Your task to perform on an android device: see sites visited before in the chrome app Image 0: 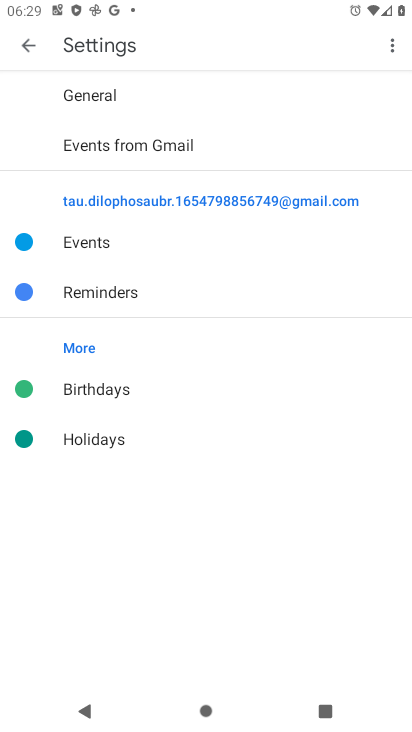
Step 0: press back button
Your task to perform on an android device: see sites visited before in the chrome app Image 1: 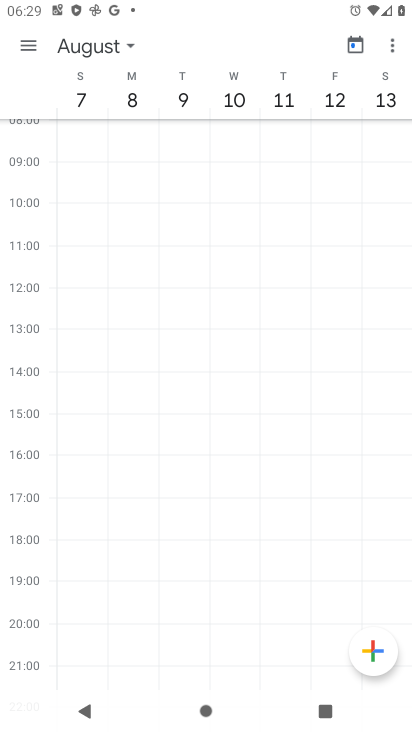
Step 1: press home button
Your task to perform on an android device: see sites visited before in the chrome app Image 2: 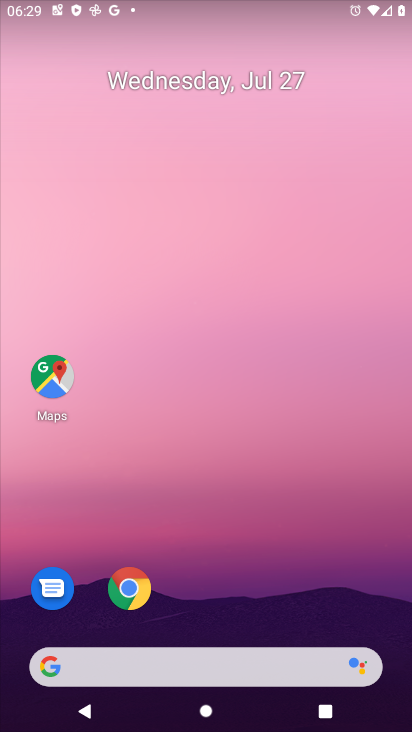
Step 2: click (130, 580)
Your task to perform on an android device: see sites visited before in the chrome app Image 3: 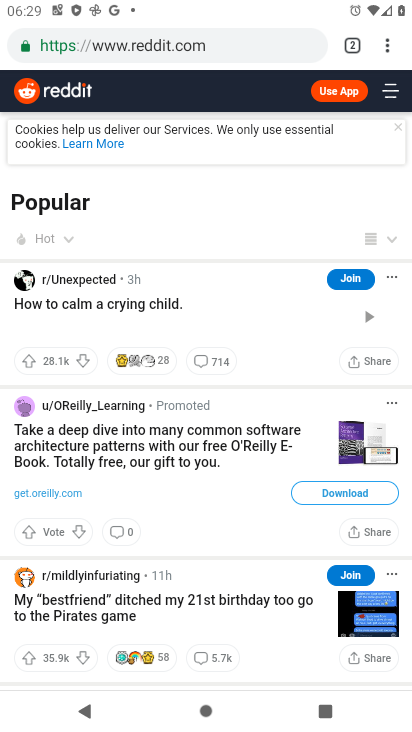
Step 3: click (387, 37)
Your task to perform on an android device: see sites visited before in the chrome app Image 4: 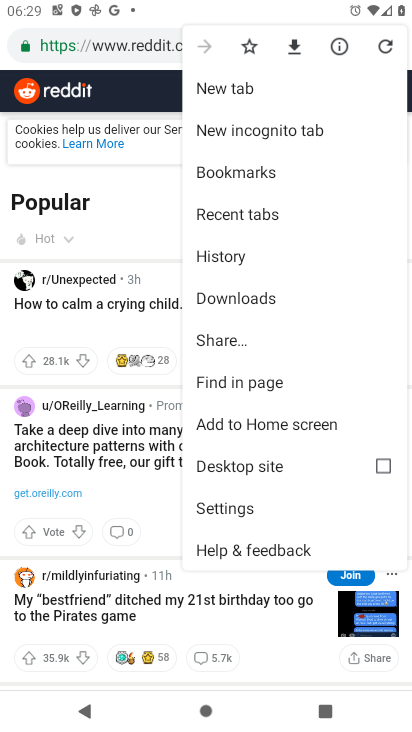
Step 4: click (220, 258)
Your task to perform on an android device: see sites visited before in the chrome app Image 5: 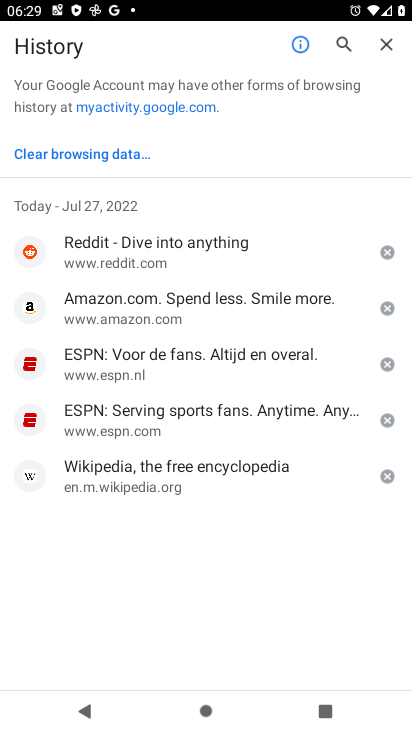
Step 5: task complete